Your task to perform on an android device: Open the Play Movies app and select the watchlist tab. Image 0: 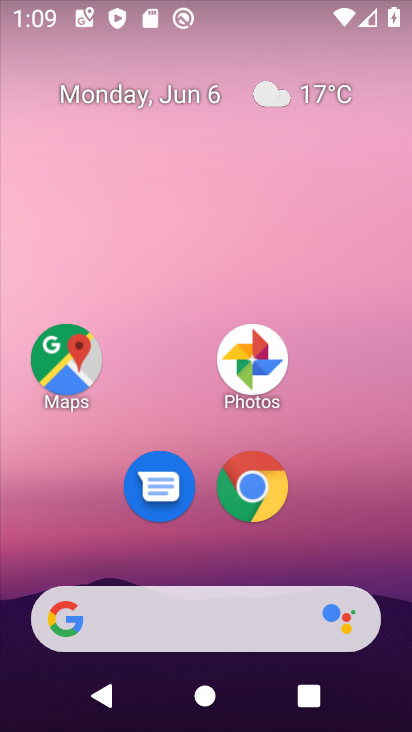
Step 0: drag from (56, 577) to (167, 87)
Your task to perform on an android device: Open the Play Movies app and select the watchlist tab. Image 1: 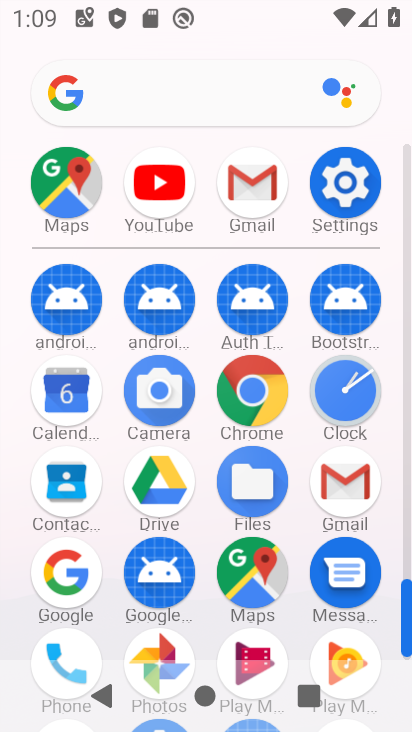
Step 1: drag from (145, 652) to (249, 341)
Your task to perform on an android device: Open the Play Movies app and select the watchlist tab. Image 2: 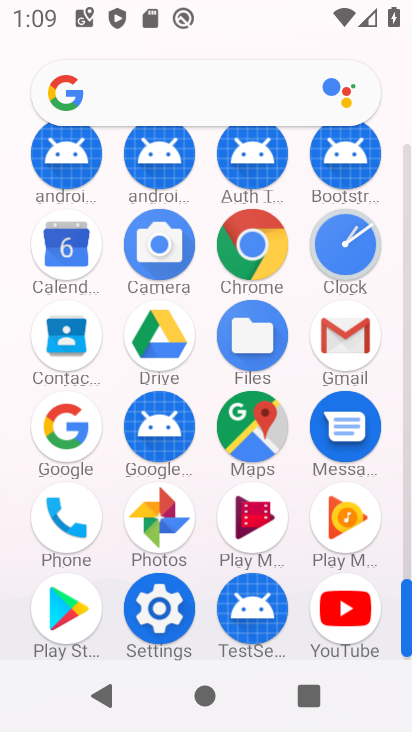
Step 2: click (250, 532)
Your task to perform on an android device: Open the Play Movies app and select the watchlist tab. Image 3: 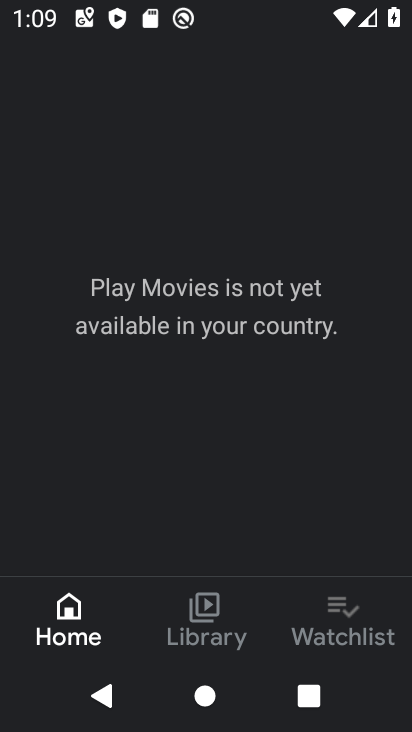
Step 3: click (306, 635)
Your task to perform on an android device: Open the Play Movies app and select the watchlist tab. Image 4: 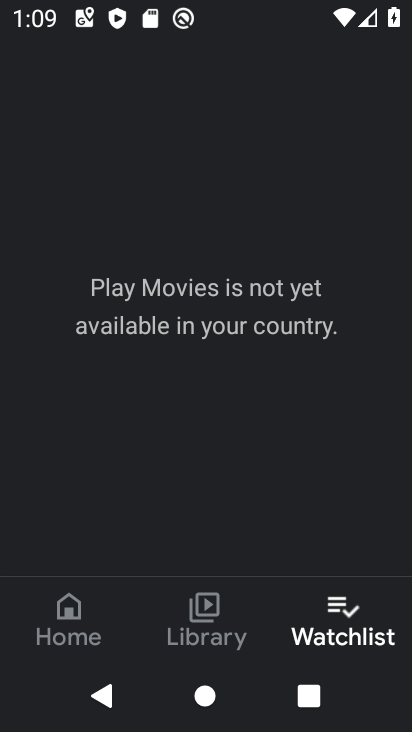
Step 4: task complete